Your task to perform on an android device: snooze an email in the gmail app Image 0: 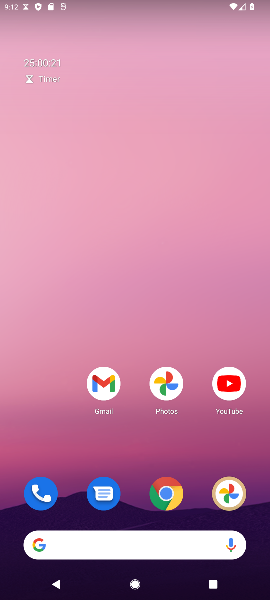
Step 0: drag from (23, 439) to (5, 271)
Your task to perform on an android device: snooze an email in the gmail app Image 1: 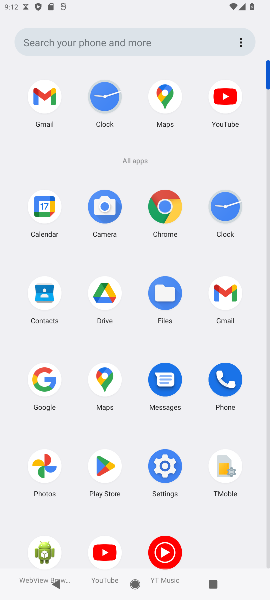
Step 1: click (37, 112)
Your task to perform on an android device: snooze an email in the gmail app Image 2: 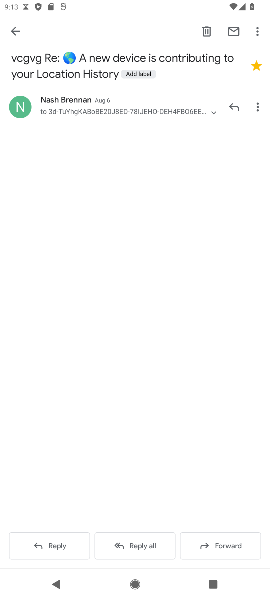
Step 2: click (11, 38)
Your task to perform on an android device: snooze an email in the gmail app Image 3: 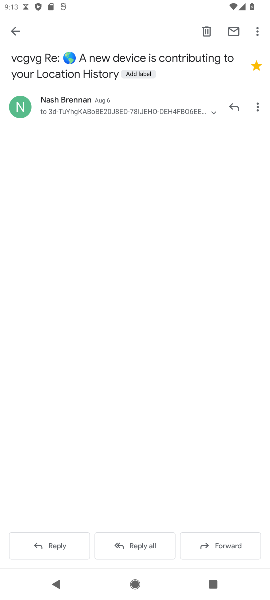
Step 3: click (9, 36)
Your task to perform on an android device: snooze an email in the gmail app Image 4: 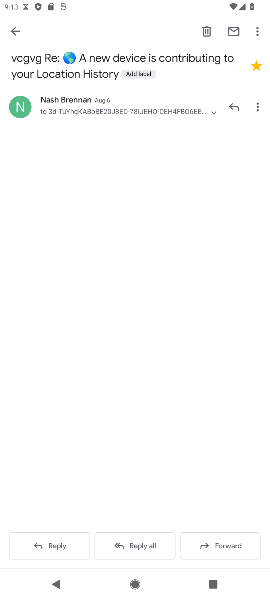
Step 4: click (11, 35)
Your task to perform on an android device: snooze an email in the gmail app Image 5: 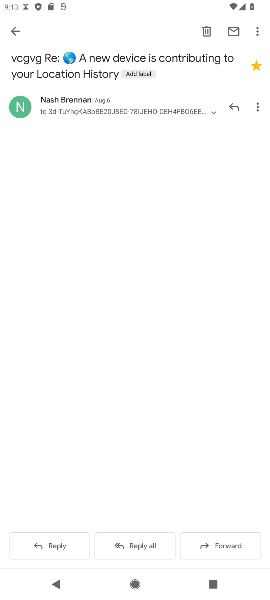
Step 5: click (14, 33)
Your task to perform on an android device: snooze an email in the gmail app Image 6: 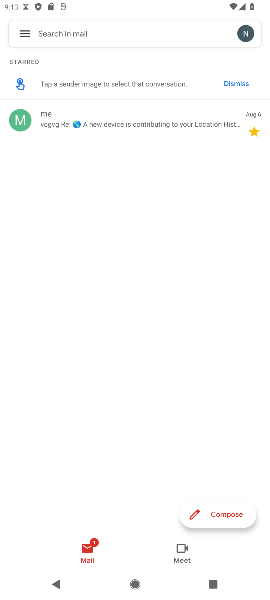
Step 6: click (19, 35)
Your task to perform on an android device: snooze an email in the gmail app Image 7: 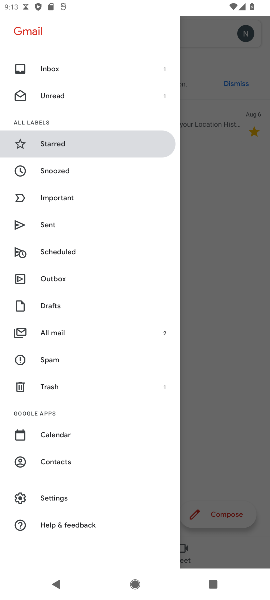
Step 7: click (49, 170)
Your task to perform on an android device: snooze an email in the gmail app Image 8: 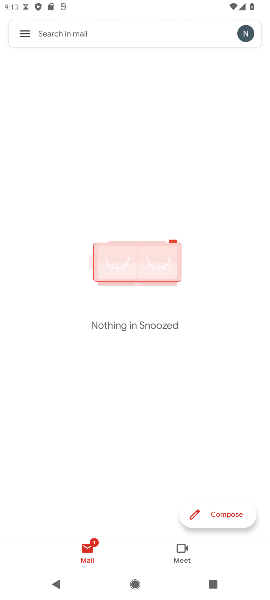
Step 8: task complete